Your task to perform on an android device: turn off improve location accuracy Image 0: 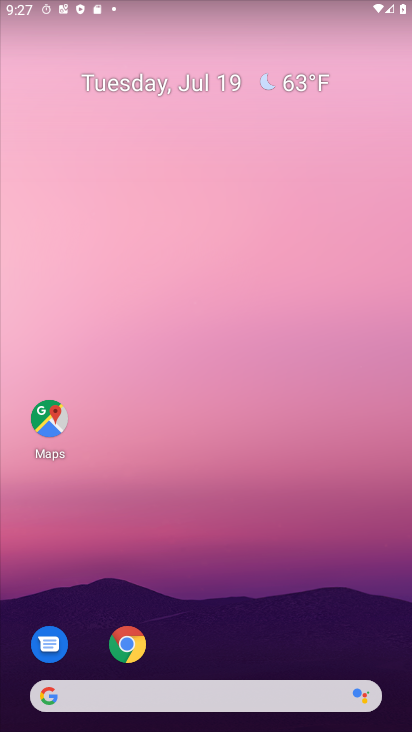
Step 0: drag from (282, 719) to (271, 245)
Your task to perform on an android device: turn off improve location accuracy Image 1: 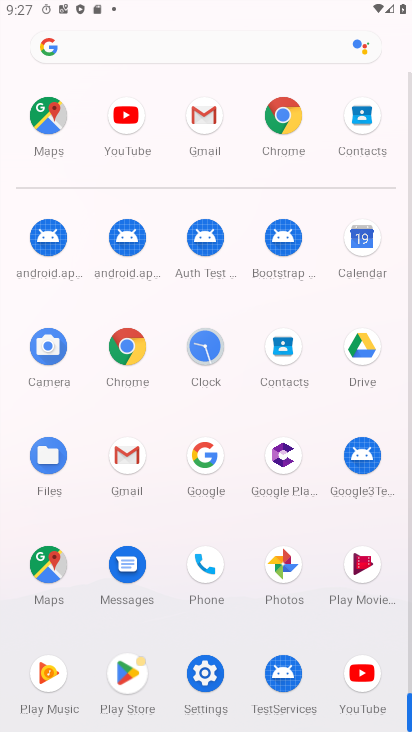
Step 1: click (204, 672)
Your task to perform on an android device: turn off improve location accuracy Image 2: 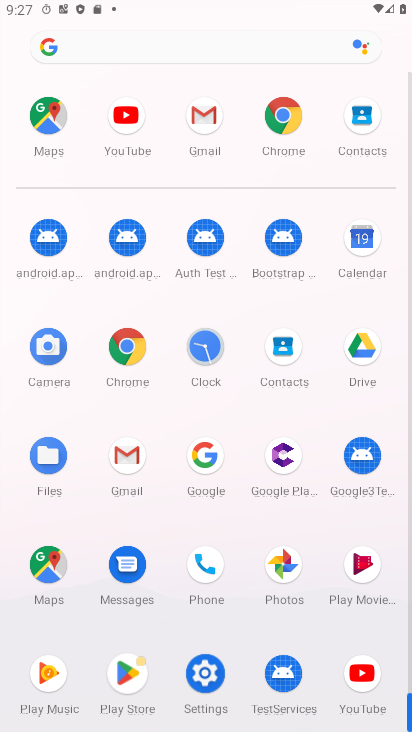
Step 2: click (204, 672)
Your task to perform on an android device: turn off improve location accuracy Image 3: 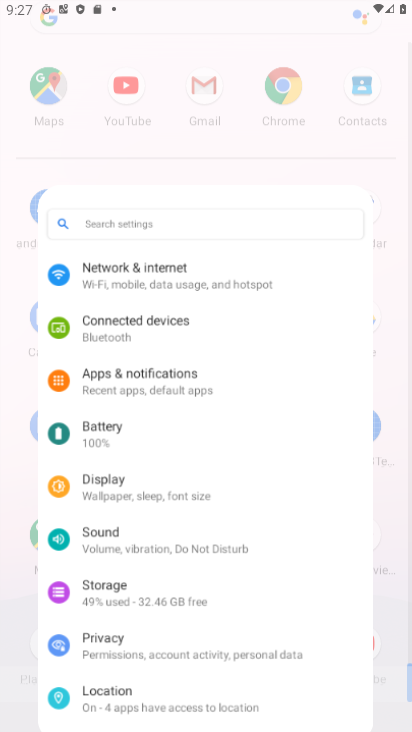
Step 3: click (204, 672)
Your task to perform on an android device: turn off improve location accuracy Image 4: 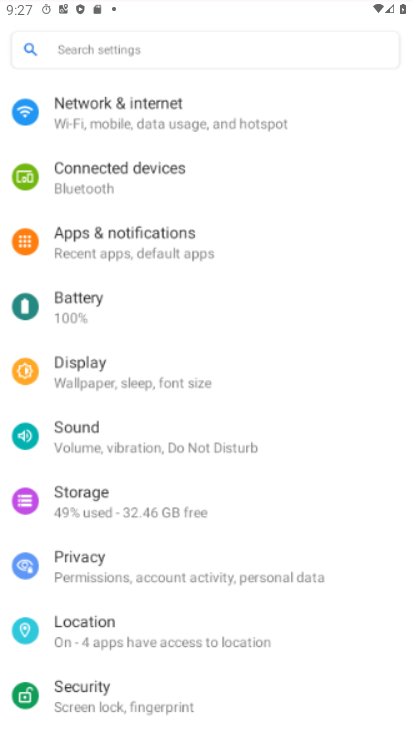
Step 4: click (204, 672)
Your task to perform on an android device: turn off improve location accuracy Image 5: 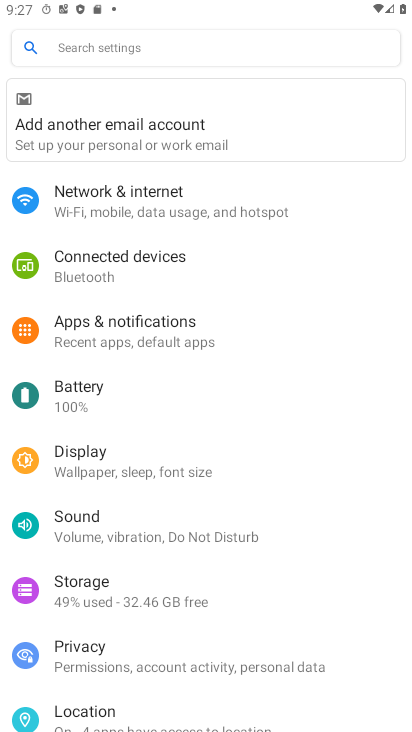
Step 5: click (204, 672)
Your task to perform on an android device: turn off improve location accuracy Image 6: 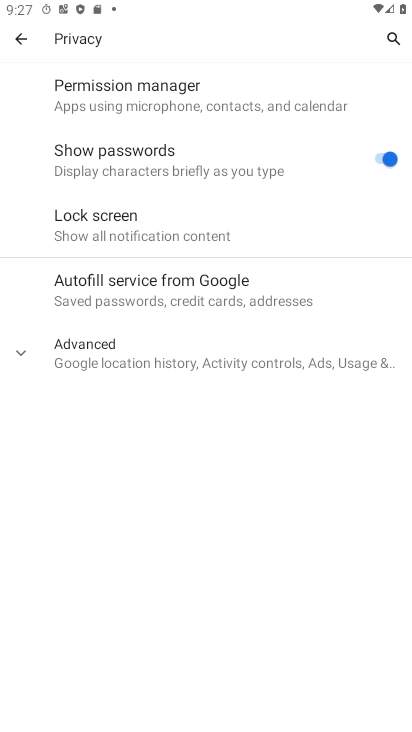
Step 6: click (26, 40)
Your task to perform on an android device: turn off improve location accuracy Image 7: 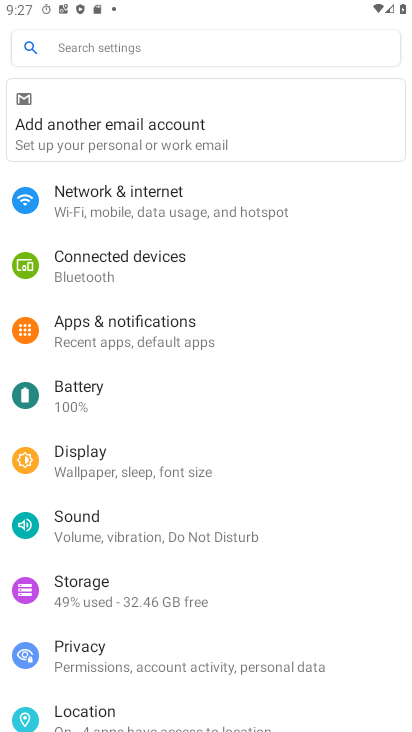
Step 7: drag from (119, 597) to (200, 388)
Your task to perform on an android device: turn off improve location accuracy Image 8: 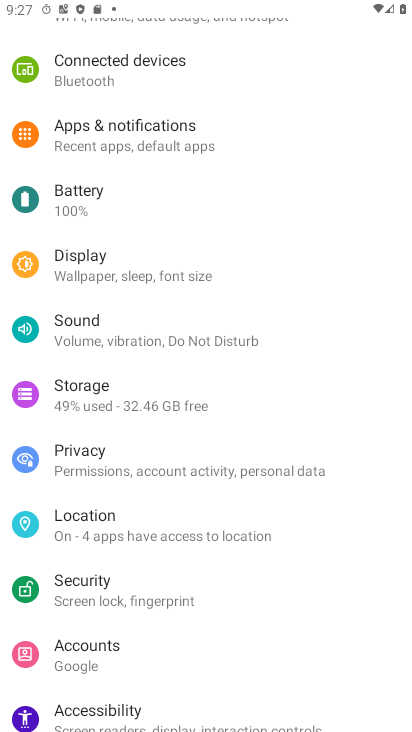
Step 8: click (106, 531)
Your task to perform on an android device: turn off improve location accuracy Image 9: 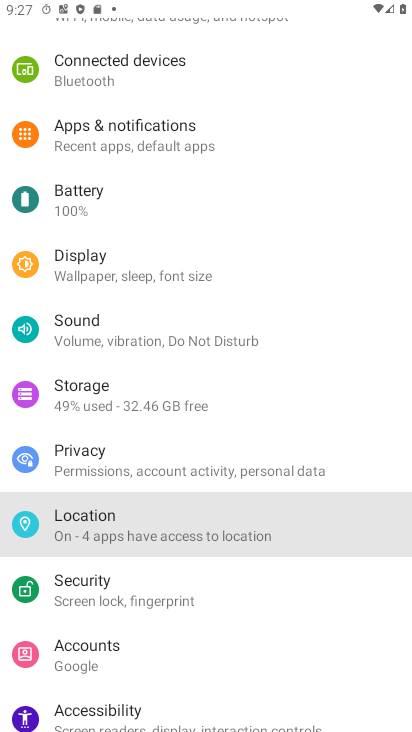
Step 9: click (110, 528)
Your task to perform on an android device: turn off improve location accuracy Image 10: 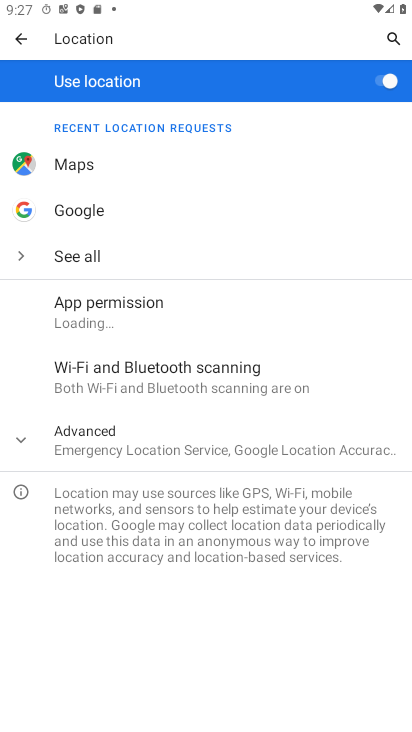
Step 10: click (103, 437)
Your task to perform on an android device: turn off improve location accuracy Image 11: 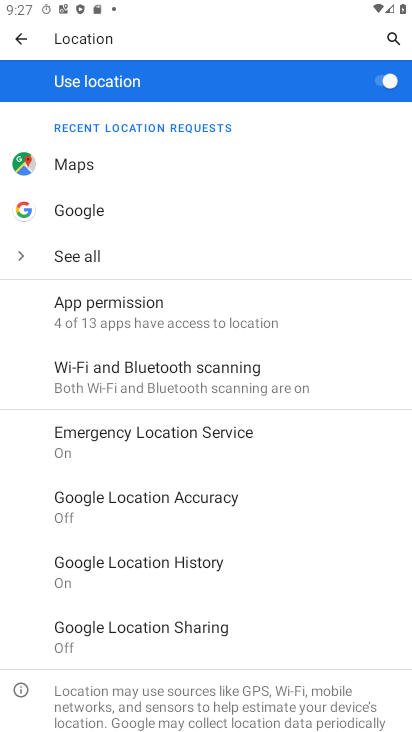
Step 11: click (158, 505)
Your task to perform on an android device: turn off improve location accuracy Image 12: 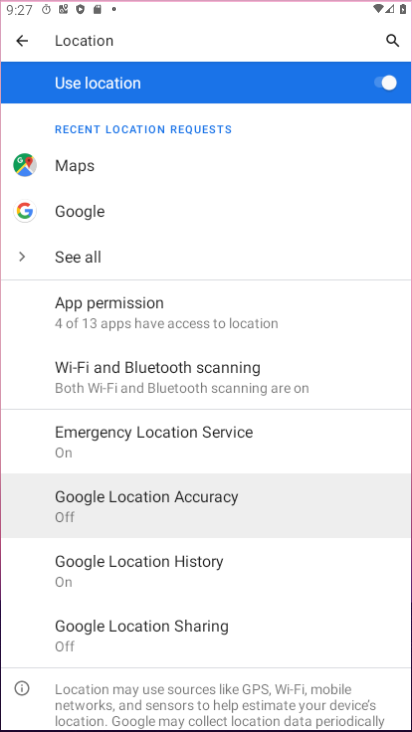
Step 12: click (158, 505)
Your task to perform on an android device: turn off improve location accuracy Image 13: 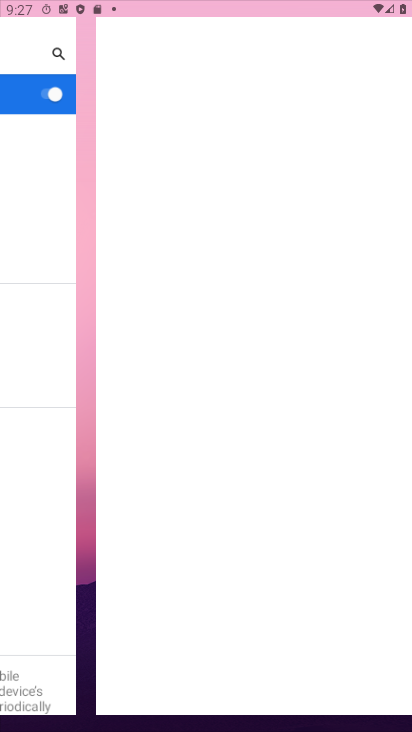
Step 13: click (158, 505)
Your task to perform on an android device: turn off improve location accuracy Image 14: 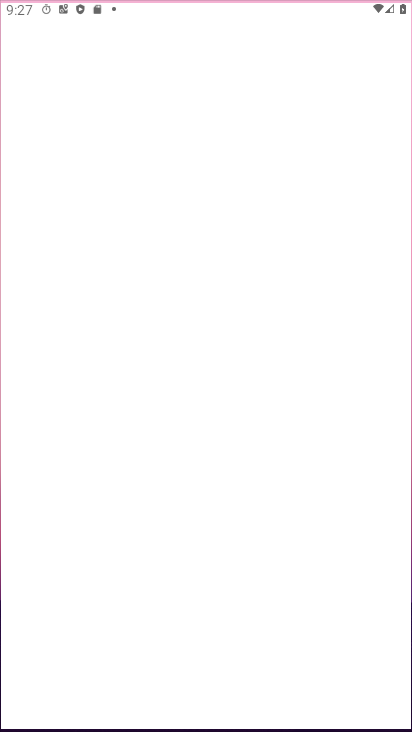
Step 14: click (159, 505)
Your task to perform on an android device: turn off improve location accuracy Image 15: 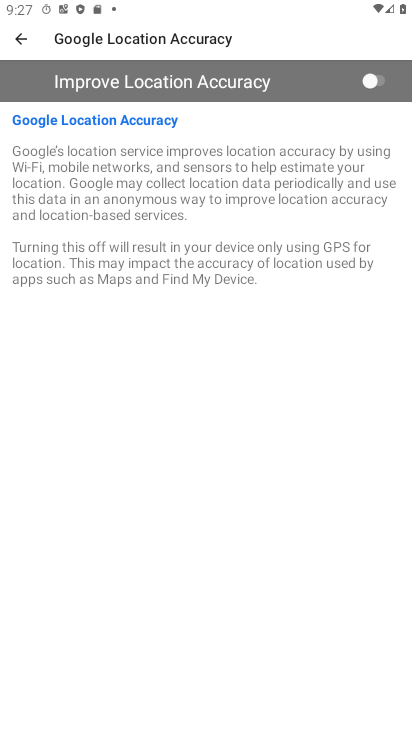
Step 15: task complete